Your task to perform on an android device: Open calendar and show me the fourth week of next month Image 0: 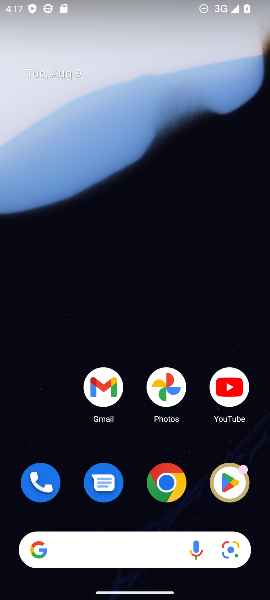
Step 0: drag from (140, 444) to (138, 153)
Your task to perform on an android device: Open calendar and show me the fourth week of next month Image 1: 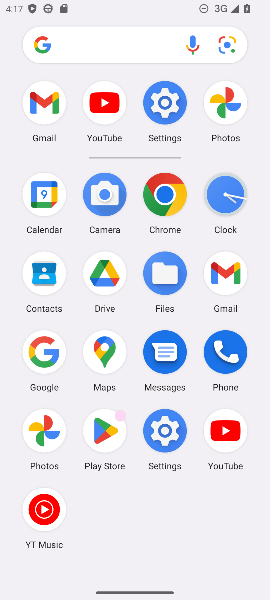
Step 1: click (42, 216)
Your task to perform on an android device: Open calendar and show me the fourth week of next month Image 2: 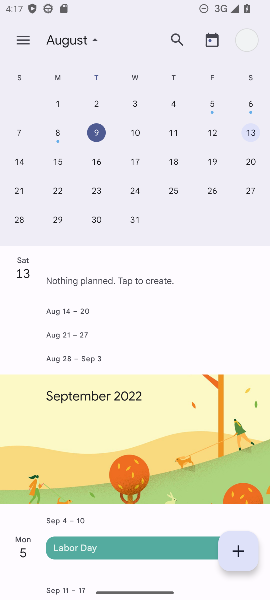
Step 2: drag from (190, 143) to (3, 139)
Your task to perform on an android device: Open calendar and show me the fourth week of next month Image 3: 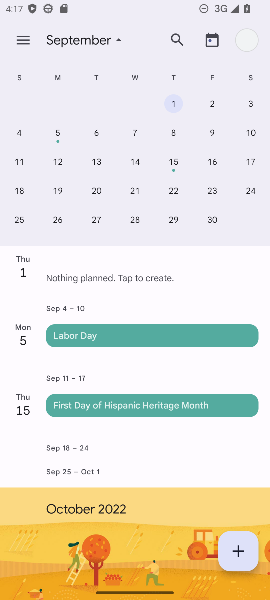
Step 3: click (21, 183)
Your task to perform on an android device: Open calendar and show me the fourth week of next month Image 4: 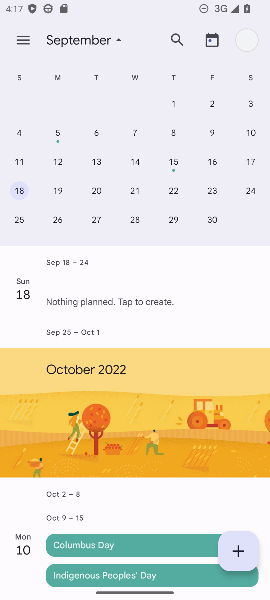
Step 4: task complete